Your task to perform on an android device: Open calendar and show me the first week of next month Image 0: 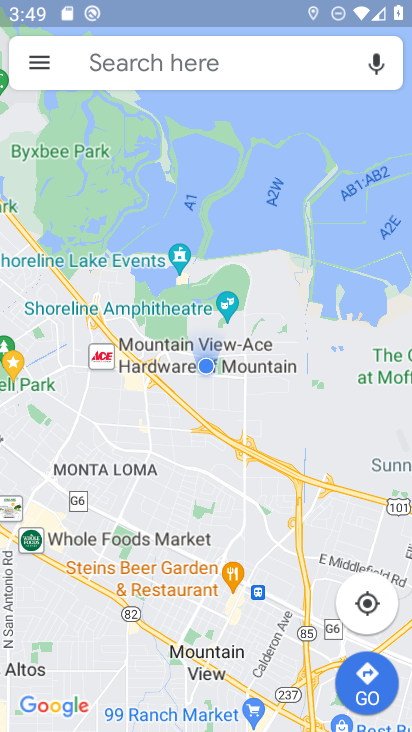
Step 0: press back button
Your task to perform on an android device: Open calendar and show me the first week of next month Image 1: 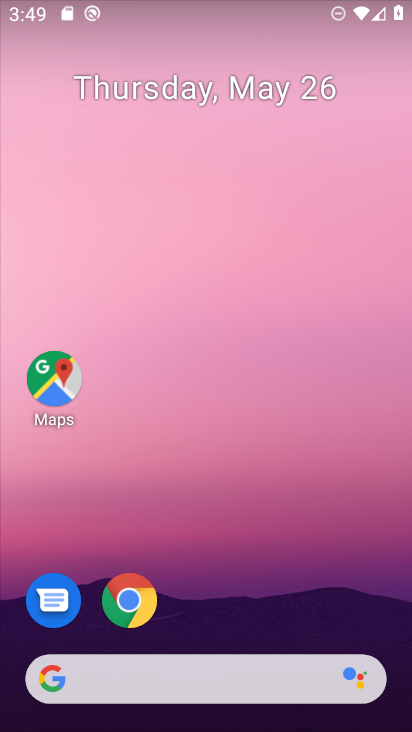
Step 1: drag from (307, 604) to (208, 55)
Your task to perform on an android device: Open calendar and show me the first week of next month Image 2: 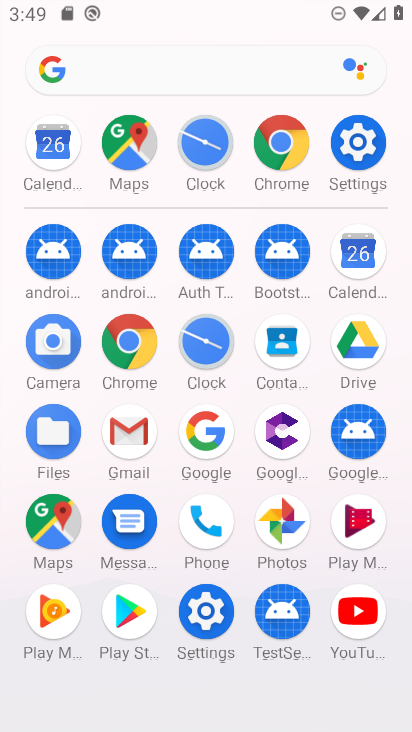
Step 2: click (353, 243)
Your task to perform on an android device: Open calendar and show me the first week of next month Image 3: 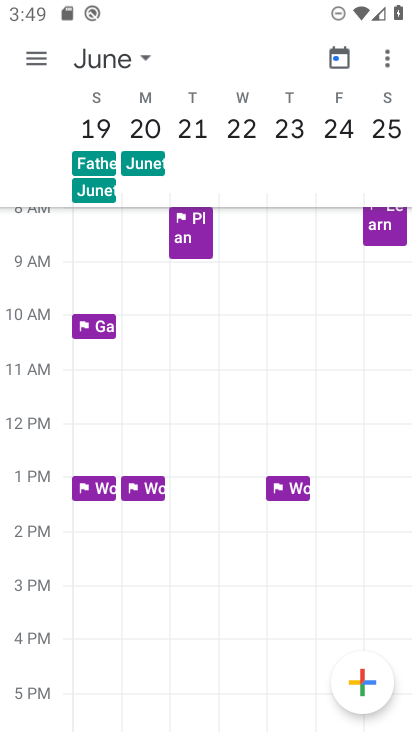
Step 3: click (115, 58)
Your task to perform on an android device: Open calendar and show me the first week of next month Image 4: 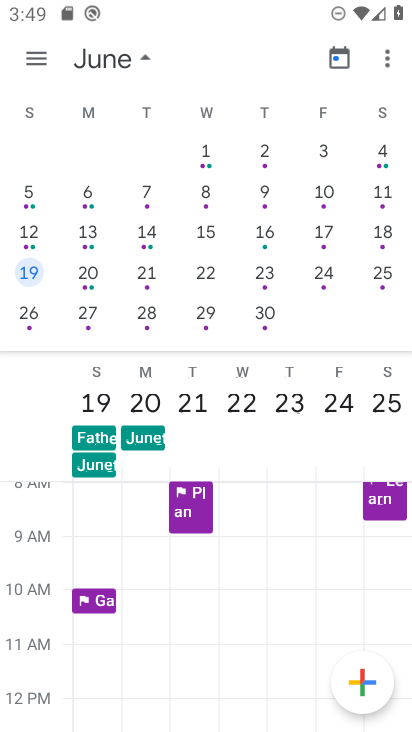
Step 4: drag from (396, 241) to (0, 233)
Your task to perform on an android device: Open calendar and show me the first week of next month Image 5: 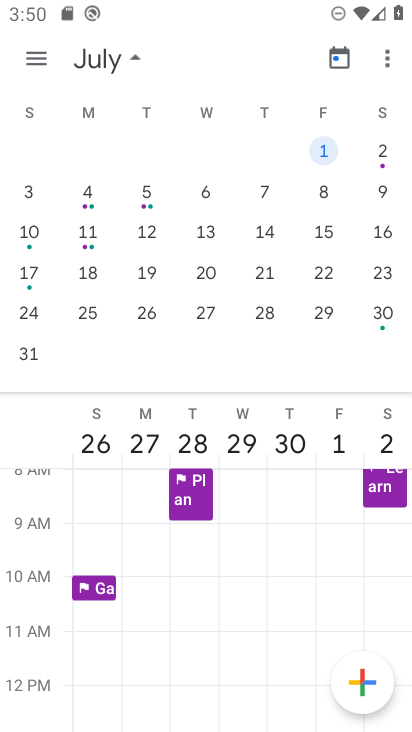
Step 5: click (26, 47)
Your task to perform on an android device: Open calendar and show me the first week of next month Image 6: 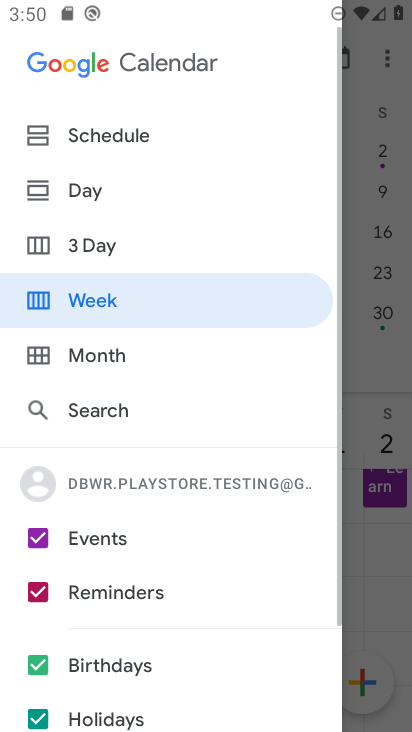
Step 6: drag from (103, 237) to (98, 310)
Your task to perform on an android device: Open calendar and show me the first week of next month Image 7: 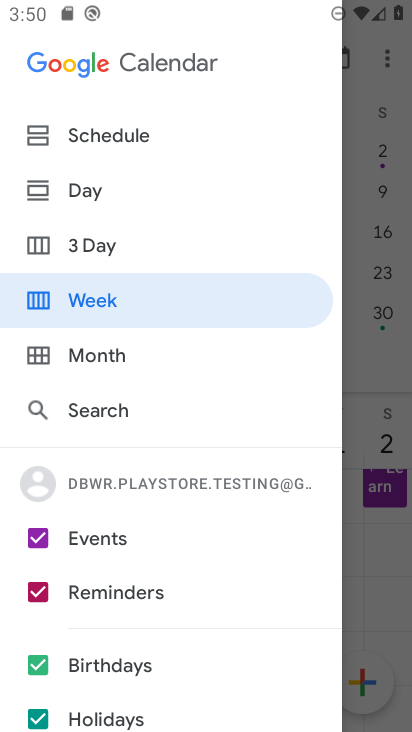
Step 7: click (190, 287)
Your task to perform on an android device: Open calendar and show me the first week of next month Image 8: 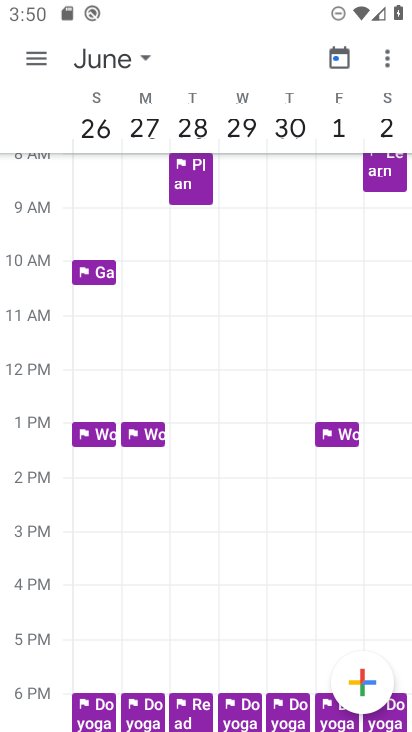
Step 8: task complete